Your task to perform on an android device: Open Yahoo.com Image 0: 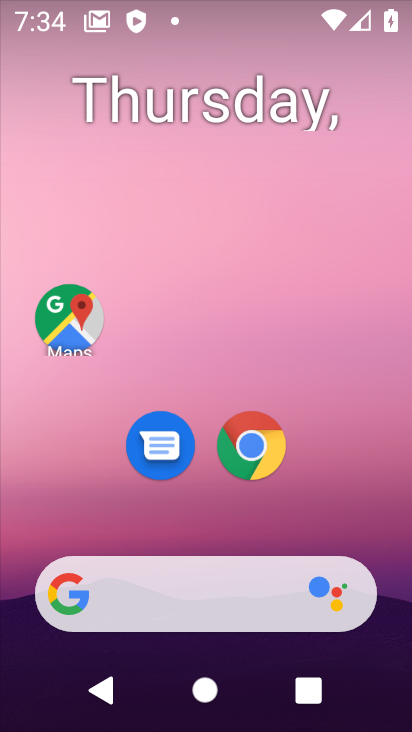
Step 0: click (259, 440)
Your task to perform on an android device: Open Yahoo.com Image 1: 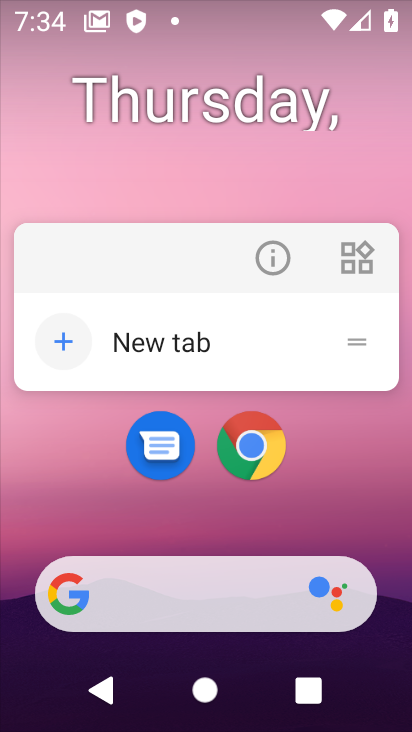
Step 1: click (259, 440)
Your task to perform on an android device: Open Yahoo.com Image 2: 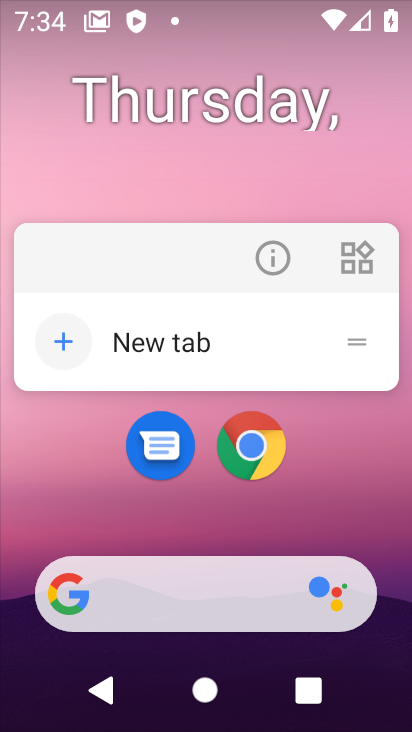
Step 2: click (259, 440)
Your task to perform on an android device: Open Yahoo.com Image 3: 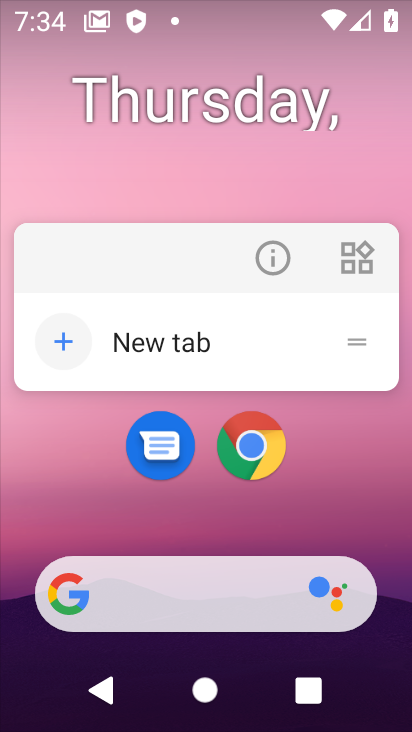
Step 3: click (259, 441)
Your task to perform on an android device: Open Yahoo.com Image 4: 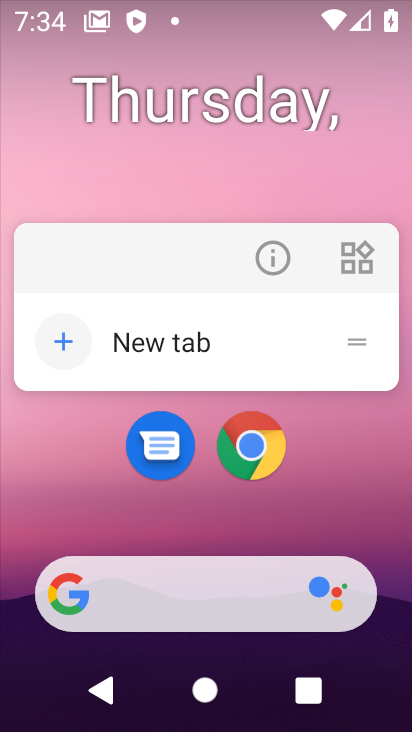
Step 4: click (259, 441)
Your task to perform on an android device: Open Yahoo.com Image 5: 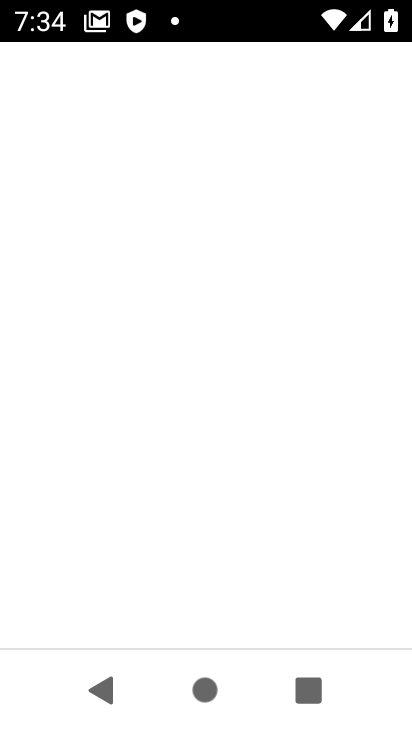
Step 5: click (259, 441)
Your task to perform on an android device: Open Yahoo.com Image 6: 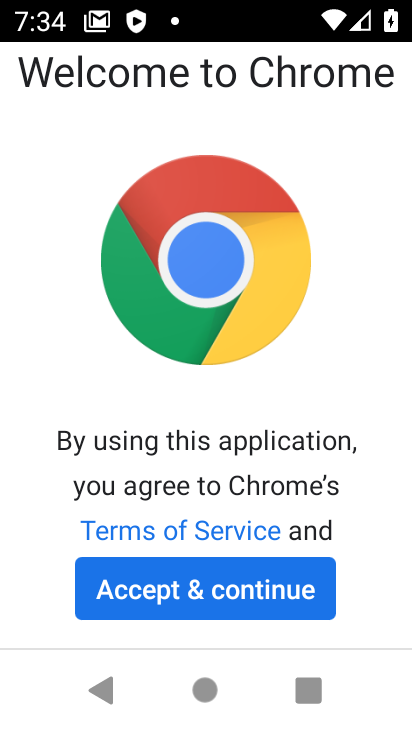
Step 6: click (107, 570)
Your task to perform on an android device: Open Yahoo.com Image 7: 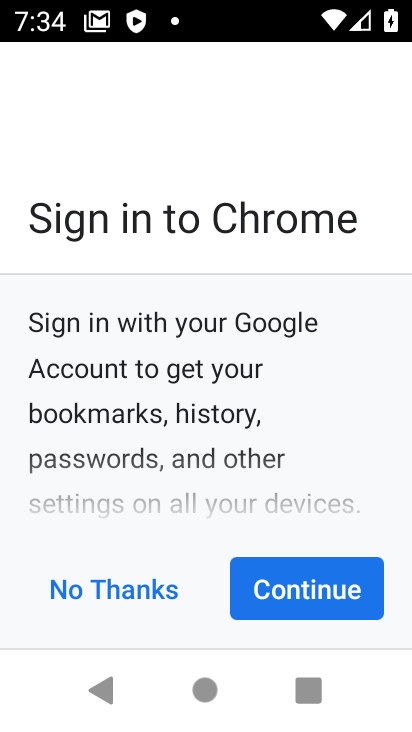
Step 7: click (107, 589)
Your task to perform on an android device: Open Yahoo.com Image 8: 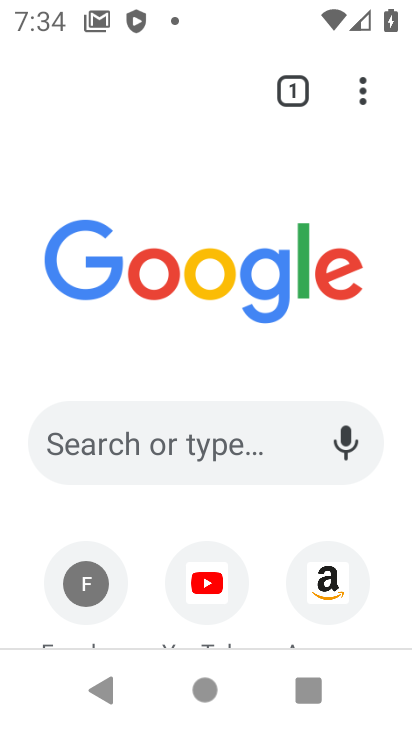
Step 8: drag from (382, 494) to (401, 138)
Your task to perform on an android device: Open Yahoo.com Image 9: 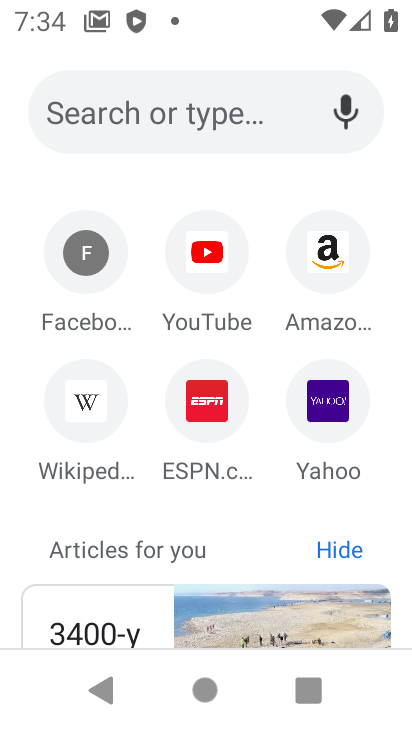
Step 9: click (339, 414)
Your task to perform on an android device: Open Yahoo.com Image 10: 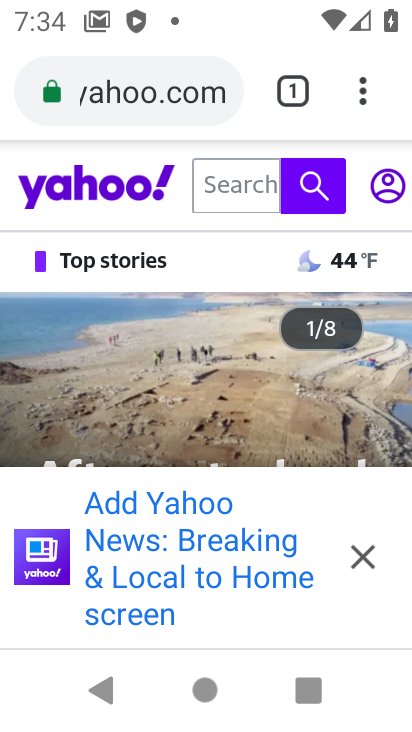
Step 10: task complete